Your task to perform on an android device: Go to calendar. Show me events next week Image 0: 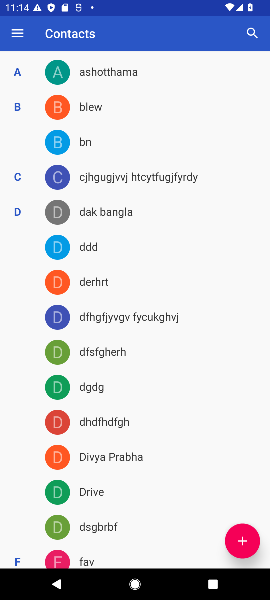
Step 0: press home button
Your task to perform on an android device: Go to calendar. Show me events next week Image 1: 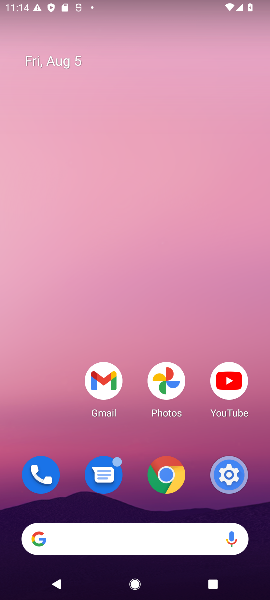
Step 1: drag from (83, 450) to (125, 11)
Your task to perform on an android device: Go to calendar. Show me events next week Image 2: 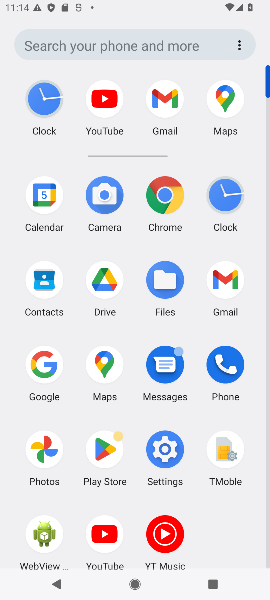
Step 2: click (49, 204)
Your task to perform on an android device: Go to calendar. Show me events next week Image 3: 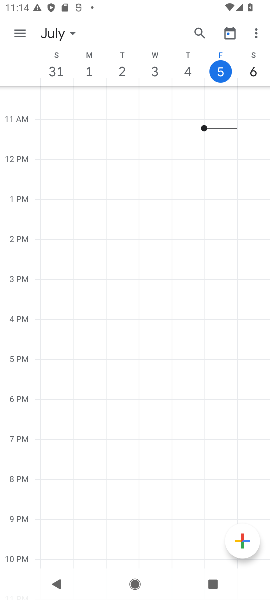
Step 3: task complete